Your task to perform on an android device: turn notification dots on Image 0: 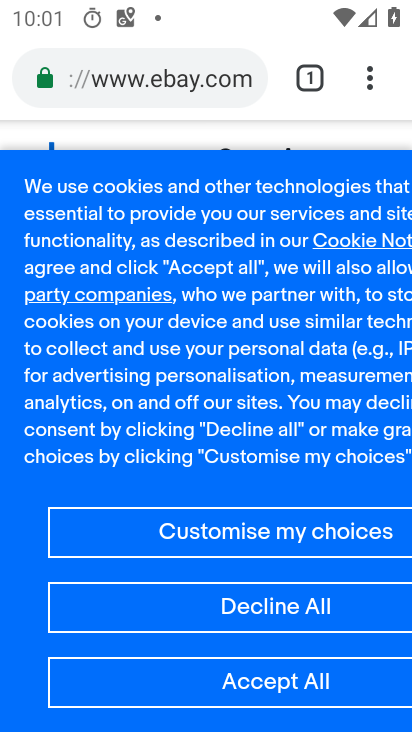
Step 0: press home button
Your task to perform on an android device: turn notification dots on Image 1: 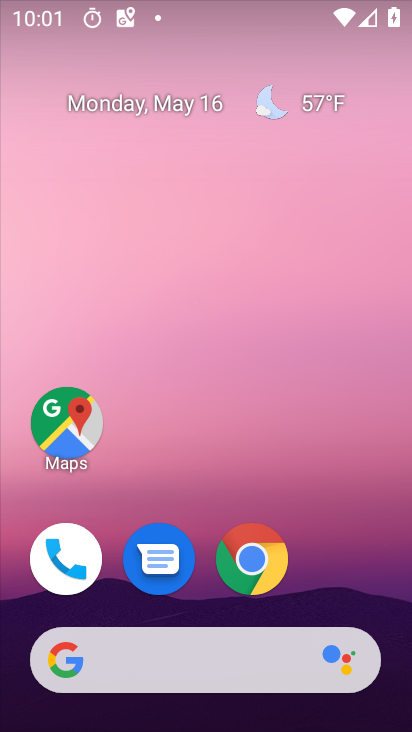
Step 1: drag from (325, 547) to (330, 141)
Your task to perform on an android device: turn notification dots on Image 2: 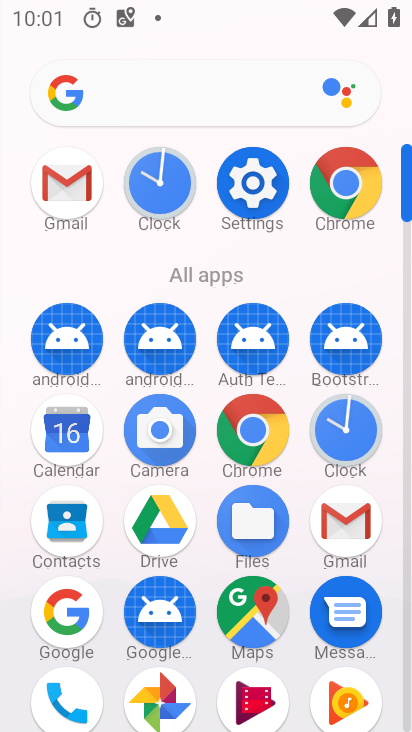
Step 2: click (258, 198)
Your task to perform on an android device: turn notification dots on Image 3: 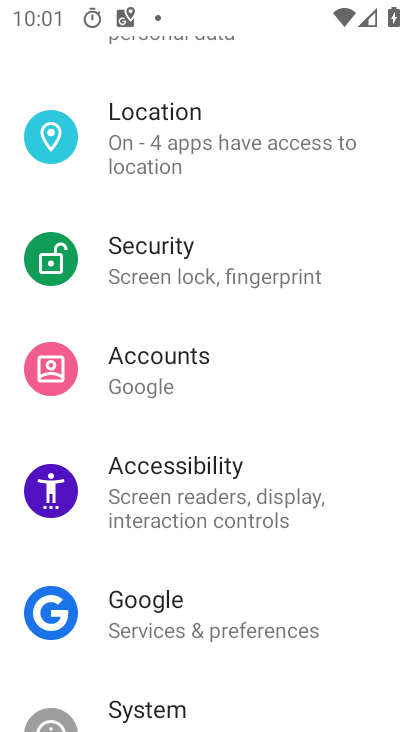
Step 3: drag from (293, 256) to (265, 692)
Your task to perform on an android device: turn notification dots on Image 4: 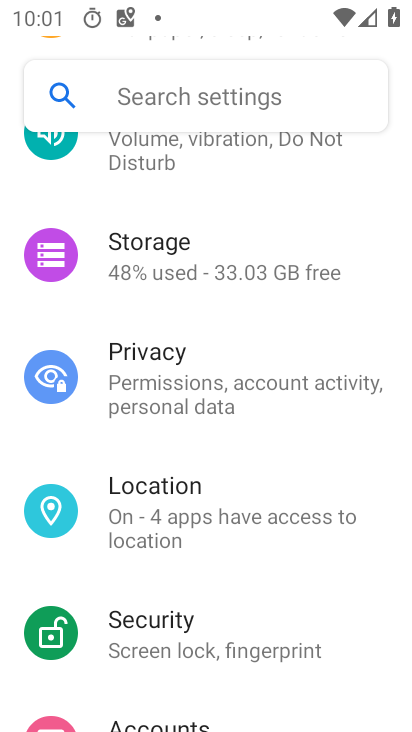
Step 4: drag from (243, 223) to (223, 611)
Your task to perform on an android device: turn notification dots on Image 5: 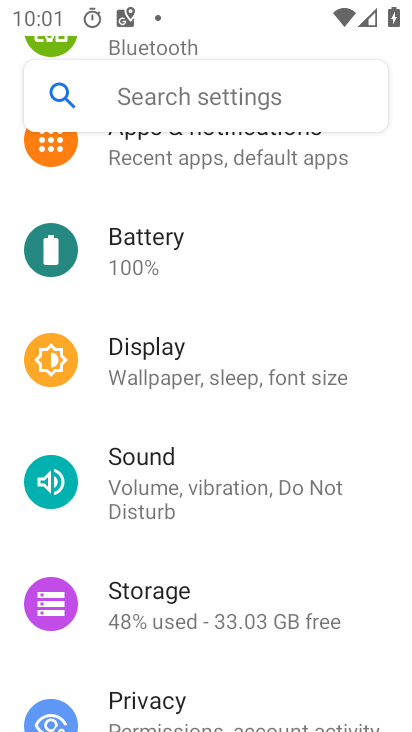
Step 5: drag from (215, 301) to (191, 582)
Your task to perform on an android device: turn notification dots on Image 6: 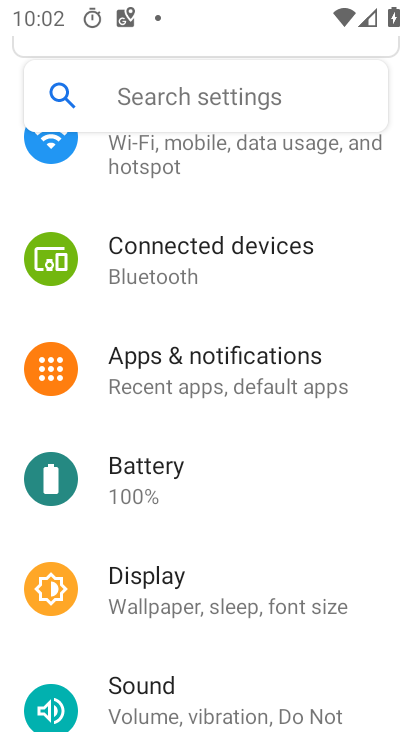
Step 6: click (209, 374)
Your task to perform on an android device: turn notification dots on Image 7: 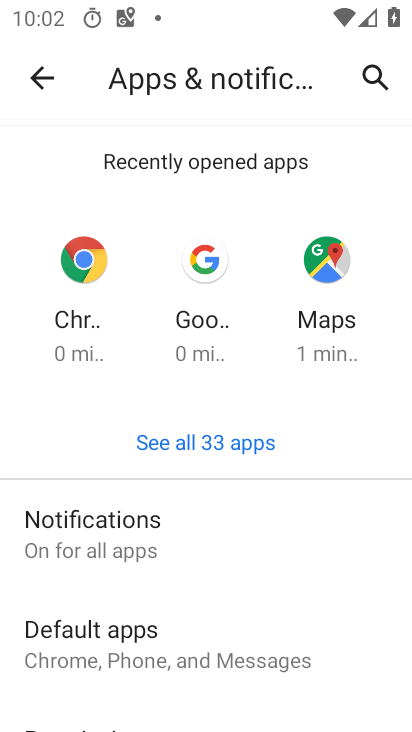
Step 7: click (120, 527)
Your task to perform on an android device: turn notification dots on Image 8: 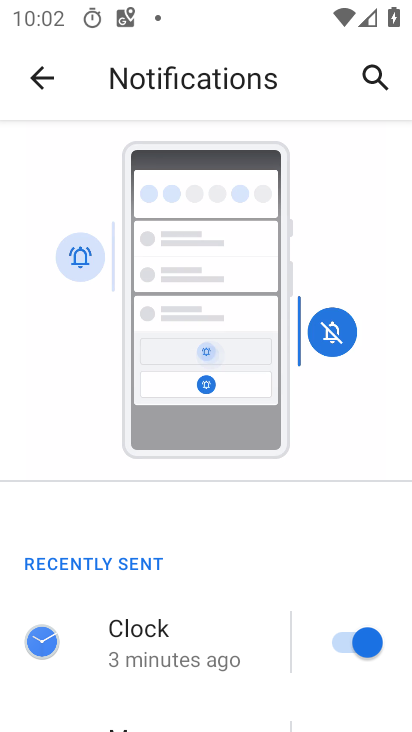
Step 8: drag from (262, 565) to (297, 52)
Your task to perform on an android device: turn notification dots on Image 9: 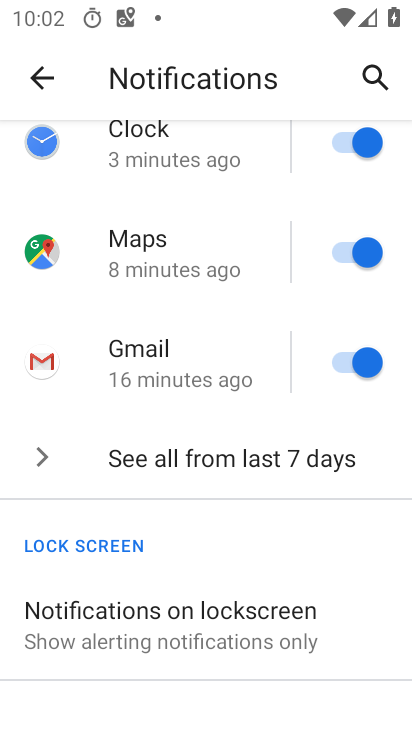
Step 9: drag from (178, 617) to (225, 181)
Your task to perform on an android device: turn notification dots on Image 10: 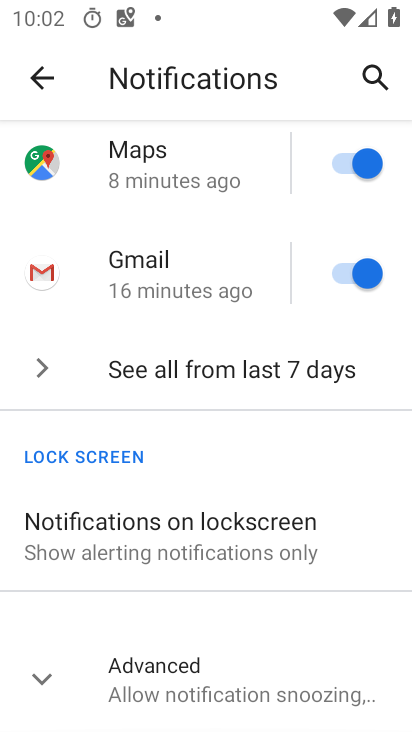
Step 10: click (123, 656)
Your task to perform on an android device: turn notification dots on Image 11: 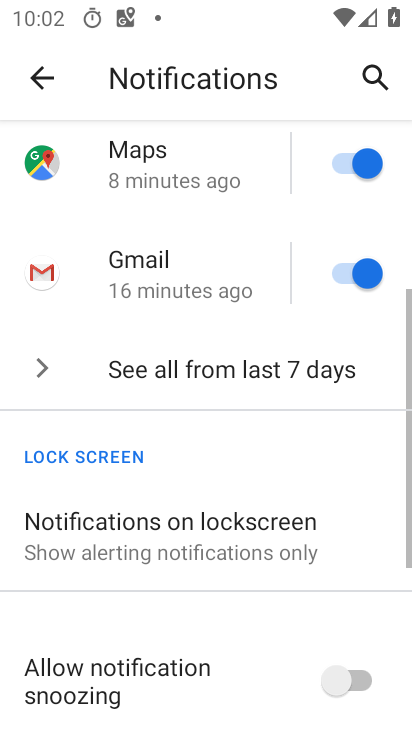
Step 11: task complete